Your task to perform on an android device: install app "ColorNote Notepad Notes" Image 0: 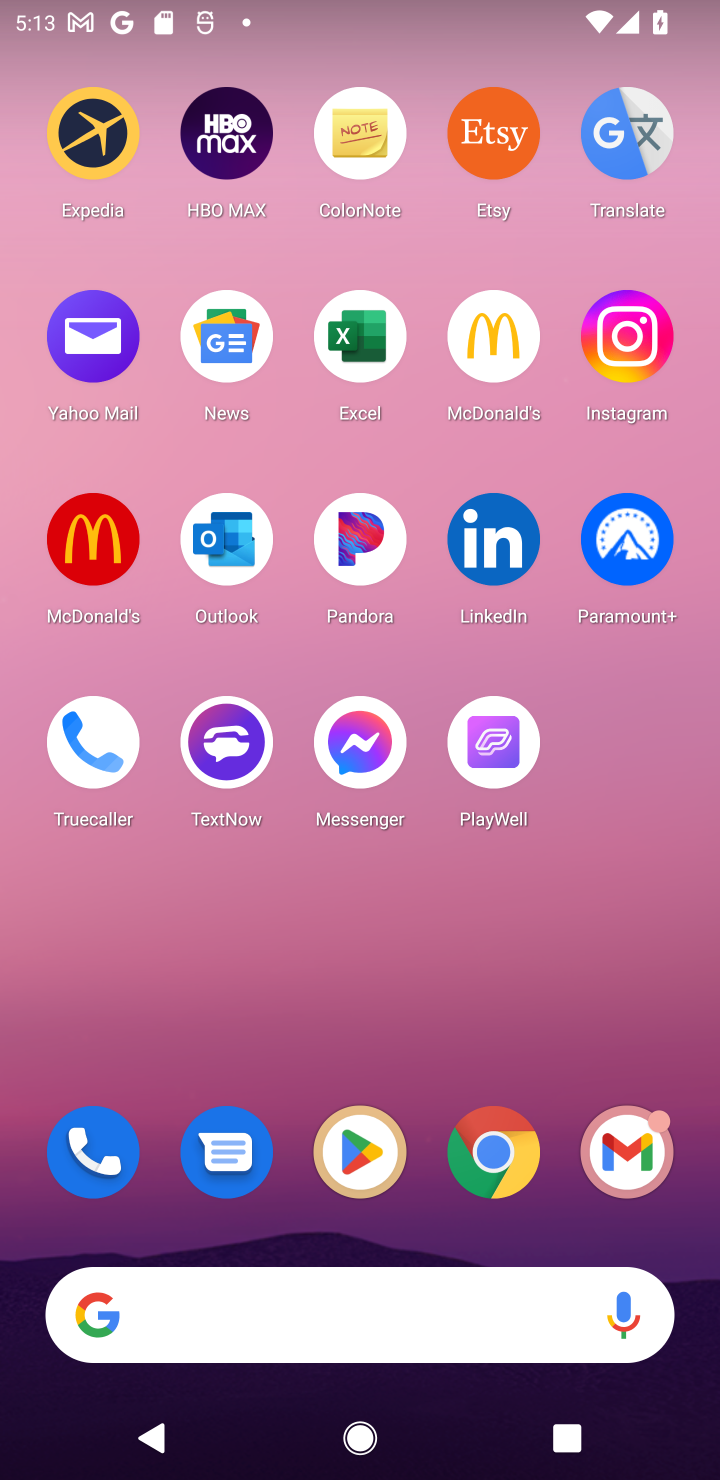
Step 0: click (395, 1155)
Your task to perform on an android device: install app "ColorNote Notepad Notes" Image 1: 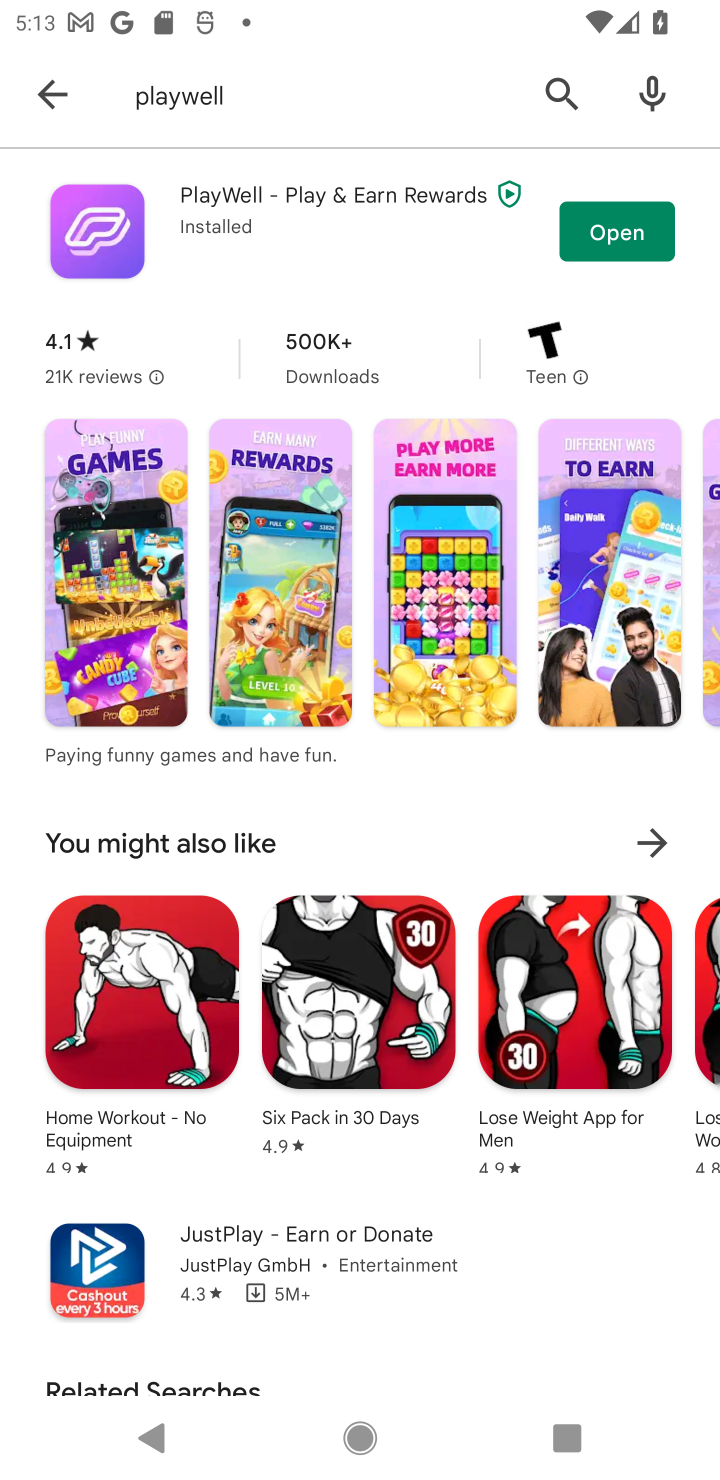
Step 1: click (60, 94)
Your task to perform on an android device: install app "ColorNote Notepad Notes" Image 2: 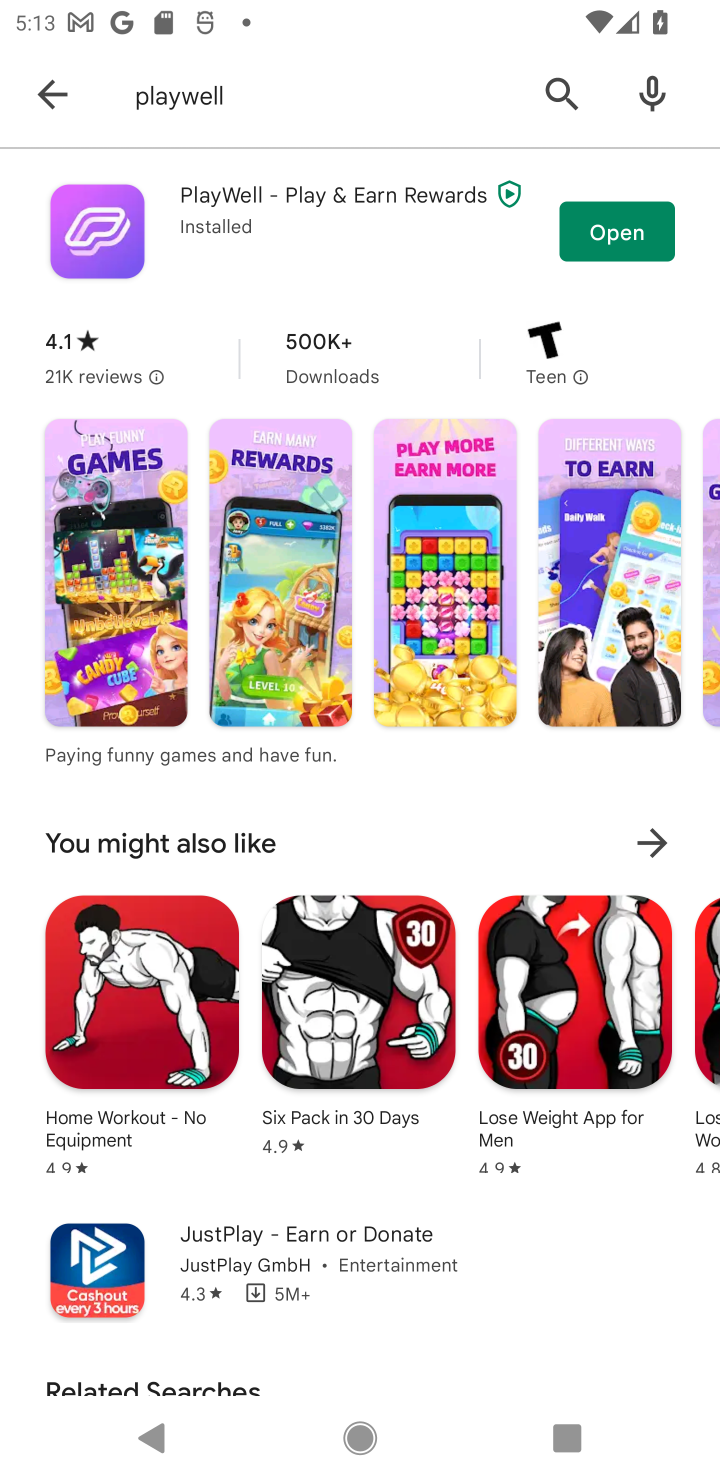
Step 2: click (568, 85)
Your task to perform on an android device: install app "ColorNote Notepad Notes" Image 3: 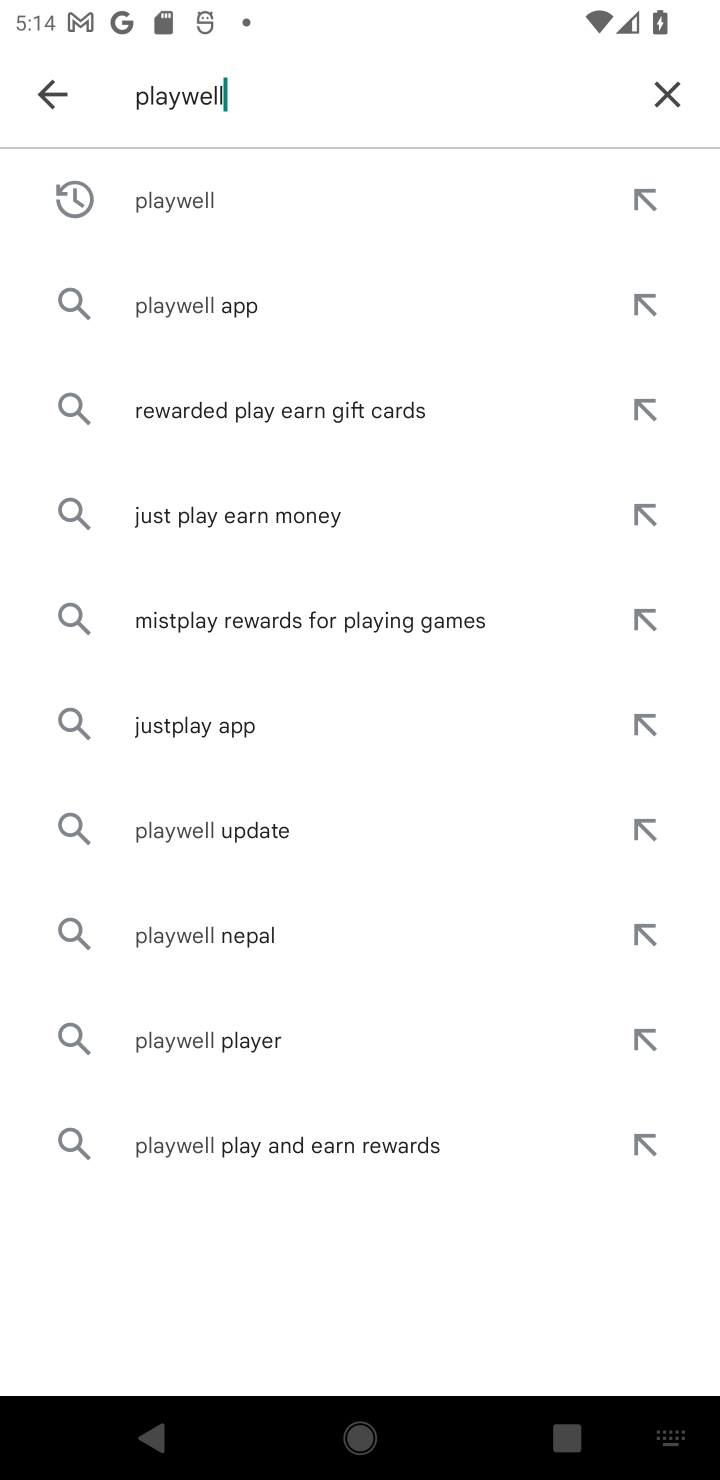
Step 3: click (666, 99)
Your task to perform on an android device: install app "ColorNote Notepad Notes" Image 4: 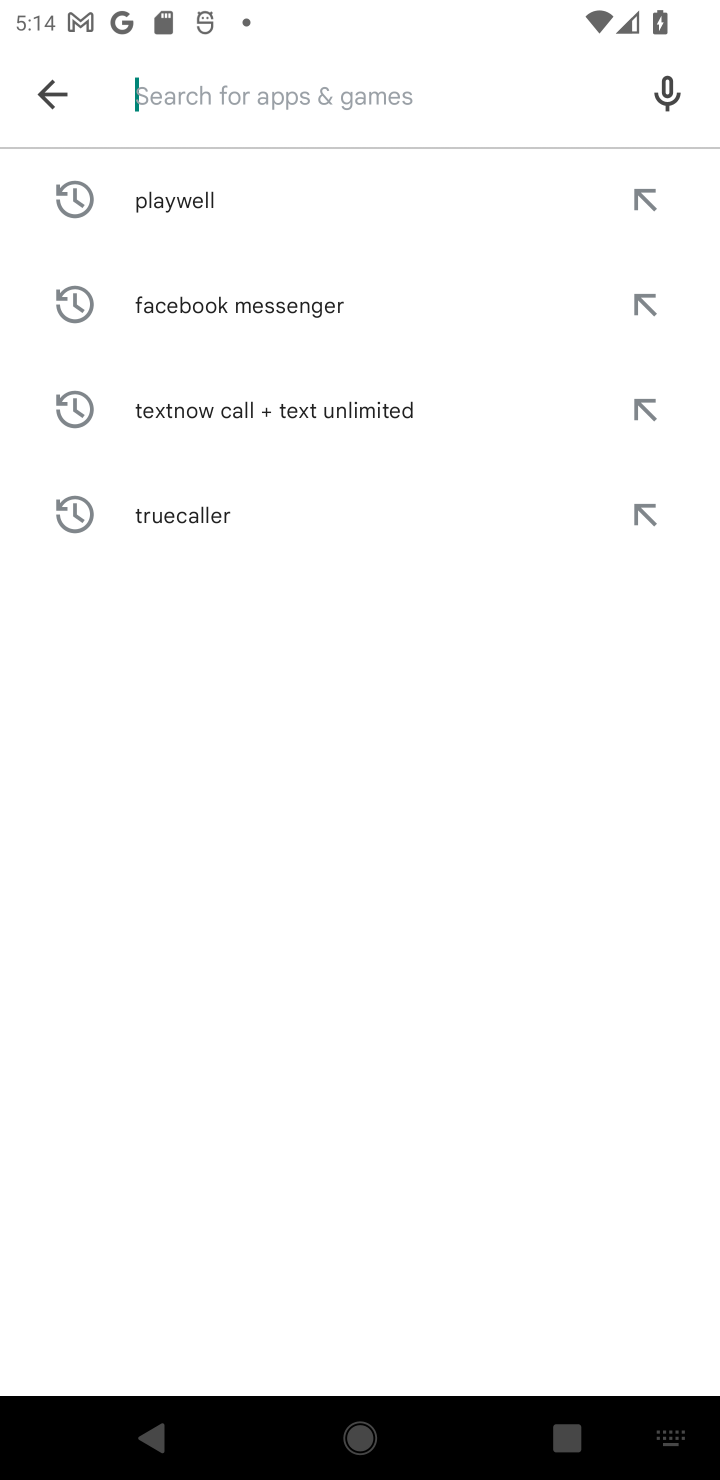
Step 4: type "ColorNote Notepad Notes"
Your task to perform on an android device: install app "ColorNote Notepad Notes" Image 5: 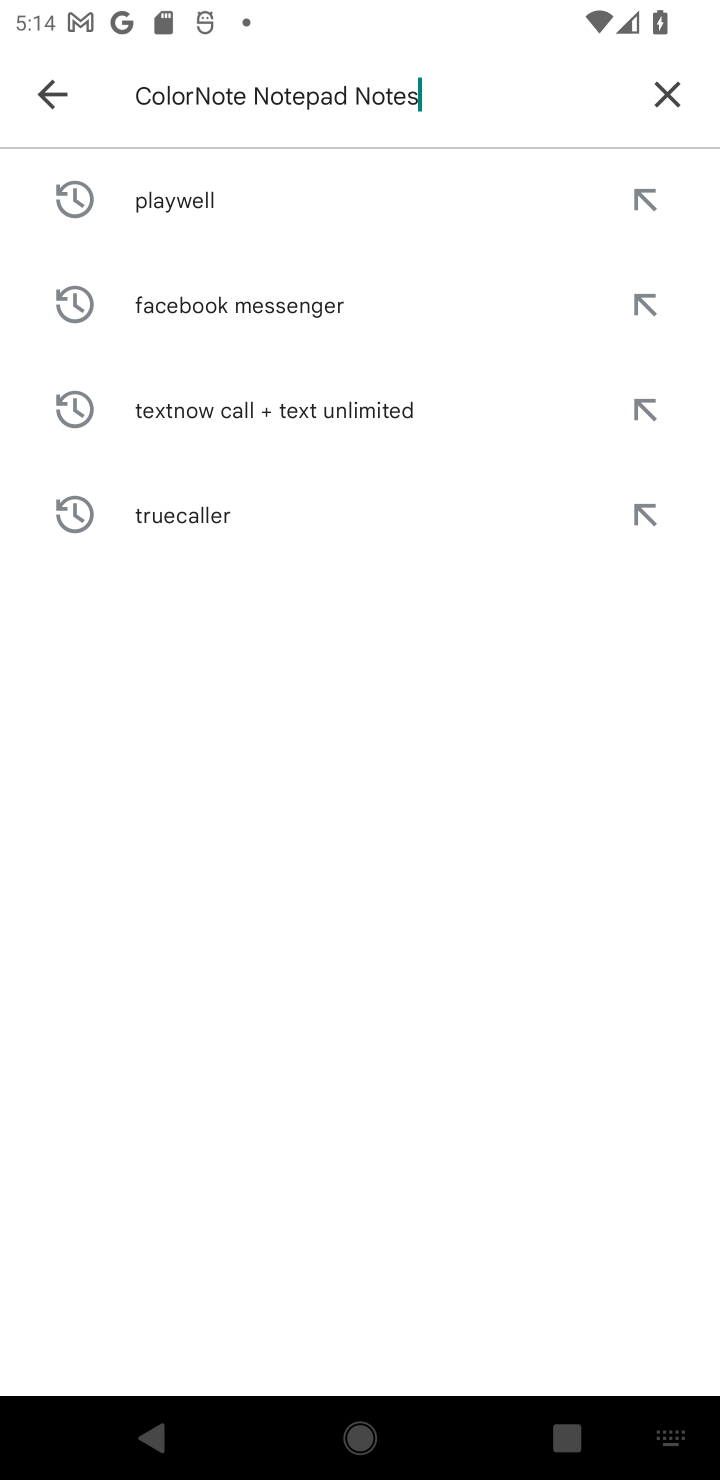
Step 5: type ""
Your task to perform on an android device: install app "ColorNote Notepad Notes" Image 6: 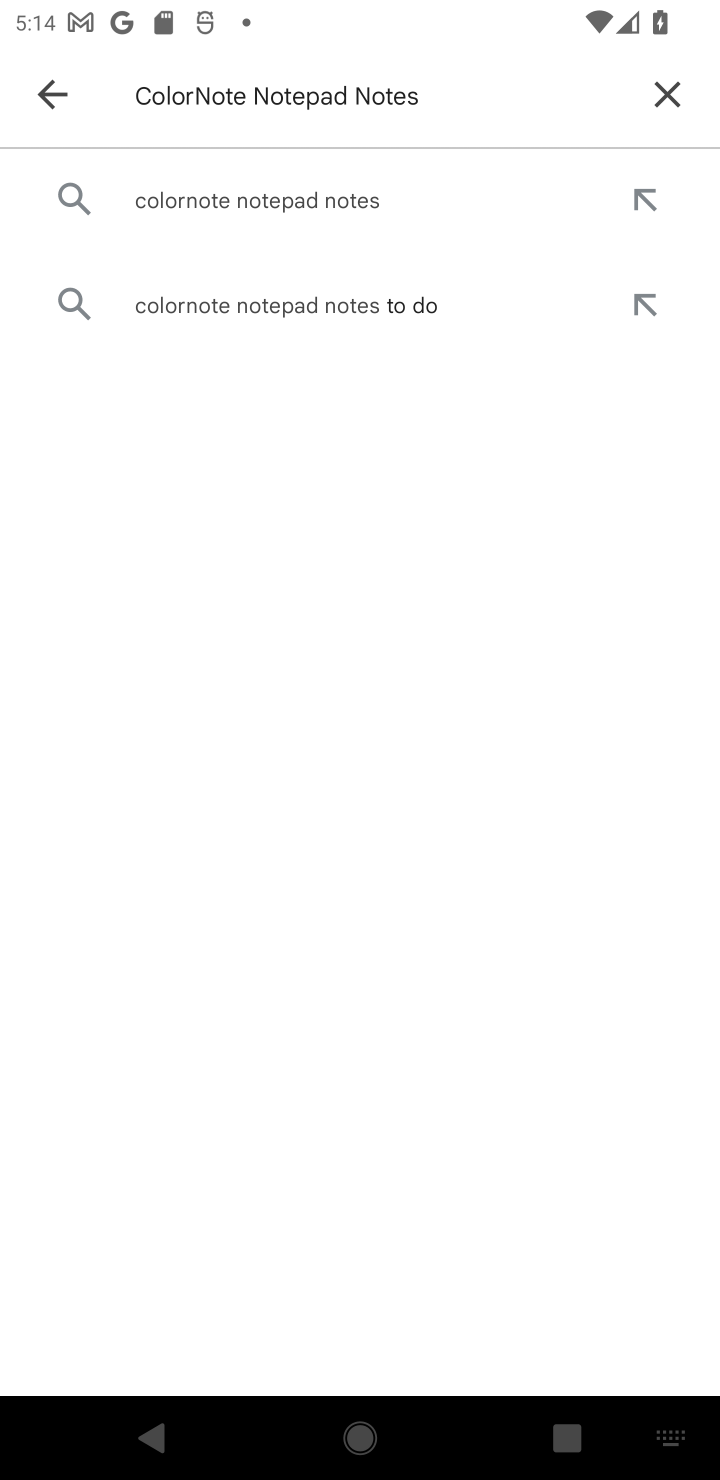
Step 6: click (258, 188)
Your task to perform on an android device: install app "ColorNote Notepad Notes" Image 7: 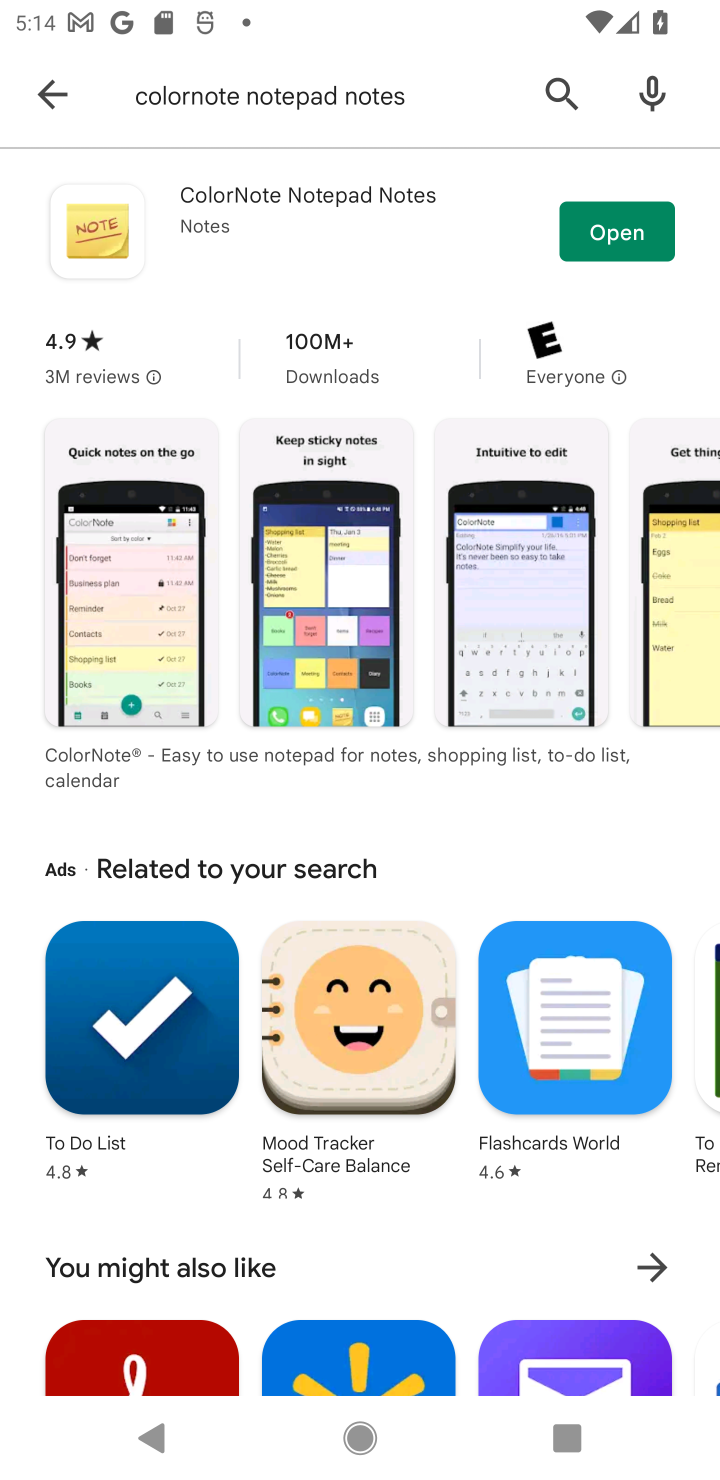
Step 7: click (569, 246)
Your task to perform on an android device: install app "ColorNote Notepad Notes" Image 8: 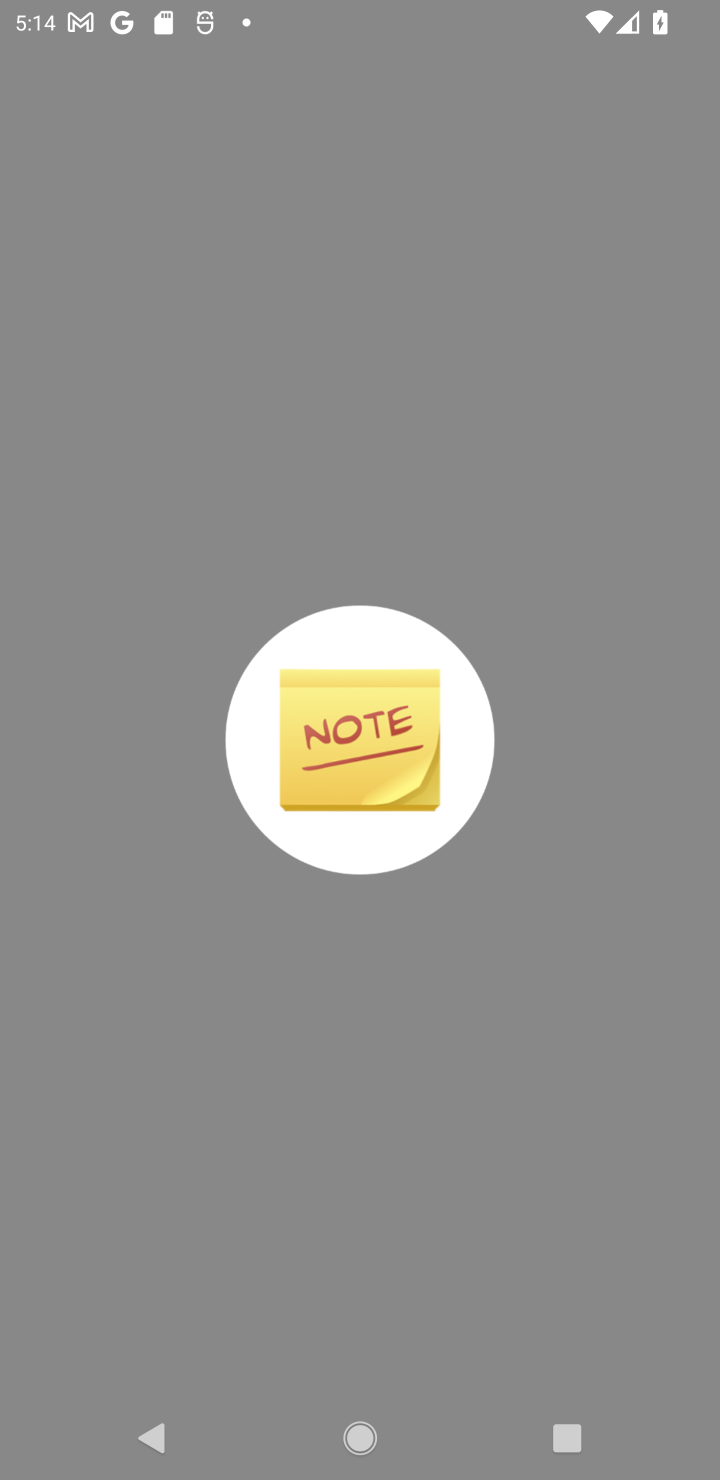
Step 8: task complete